Your task to perform on an android device: What's on my calendar today? Image 0: 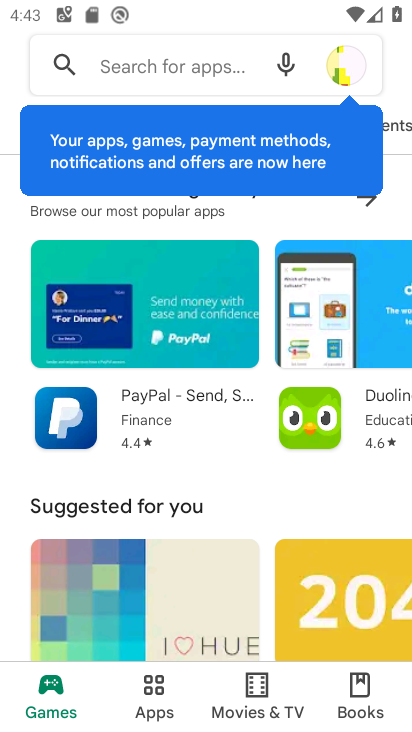
Step 0: press back button
Your task to perform on an android device: What's on my calendar today? Image 1: 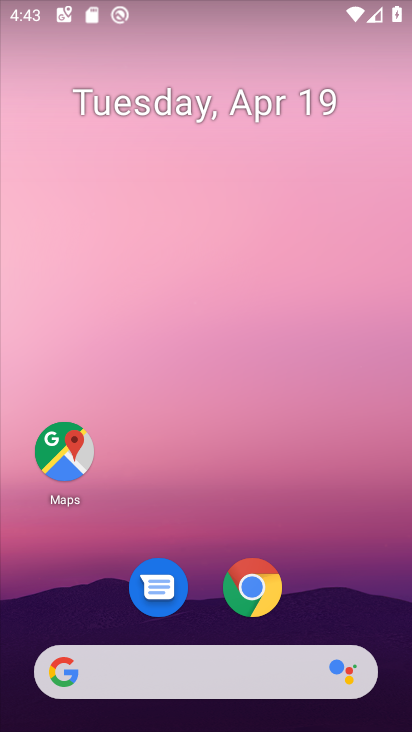
Step 1: drag from (335, 509) to (211, 23)
Your task to perform on an android device: What's on my calendar today? Image 2: 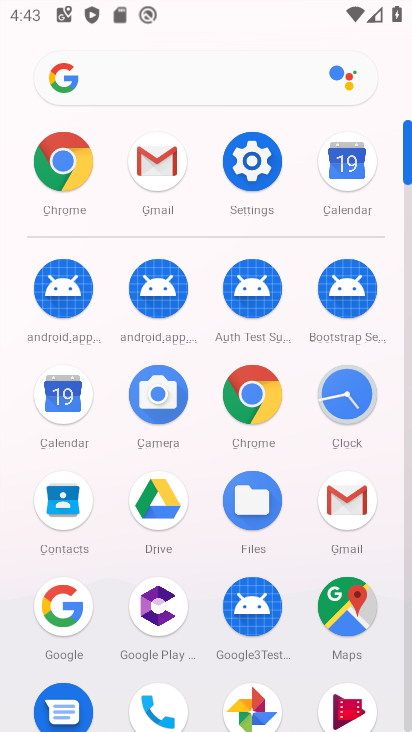
Step 2: drag from (19, 507) to (14, 219)
Your task to perform on an android device: What's on my calendar today? Image 3: 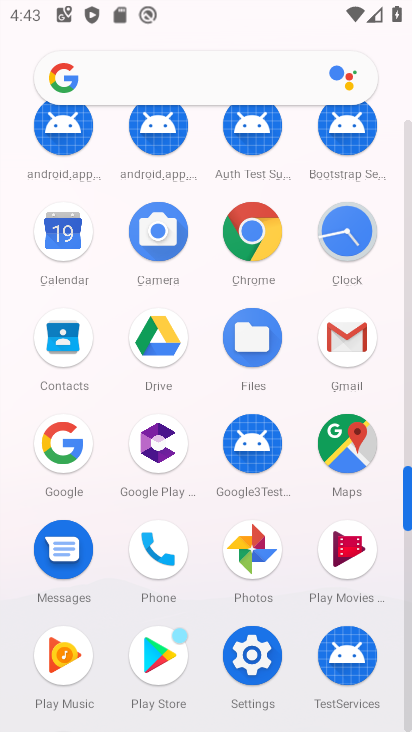
Step 3: click (52, 231)
Your task to perform on an android device: What's on my calendar today? Image 4: 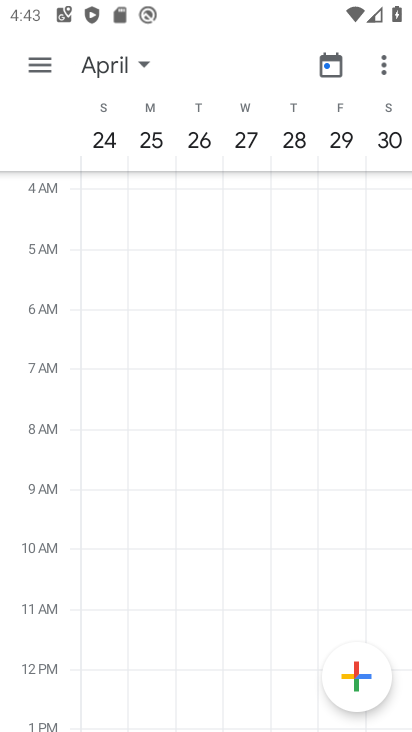
Step 4: click (326, 69)
Your task to perform on an android device: What's on my calendar today? Image 5: 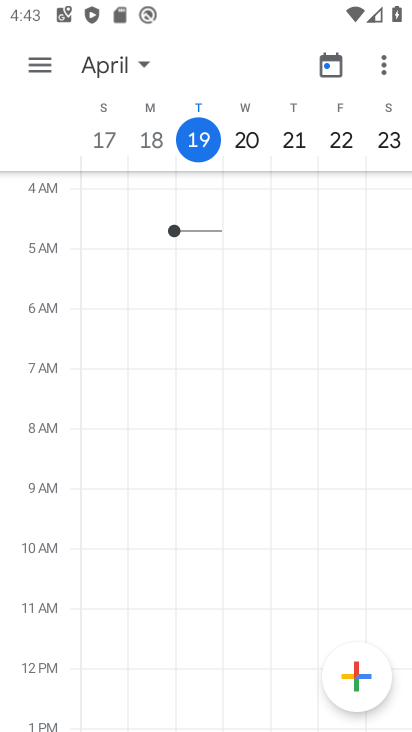
Step 5: task complete